Your task to perform on an android device: turn on notifications settings in the gmail app Image 0: 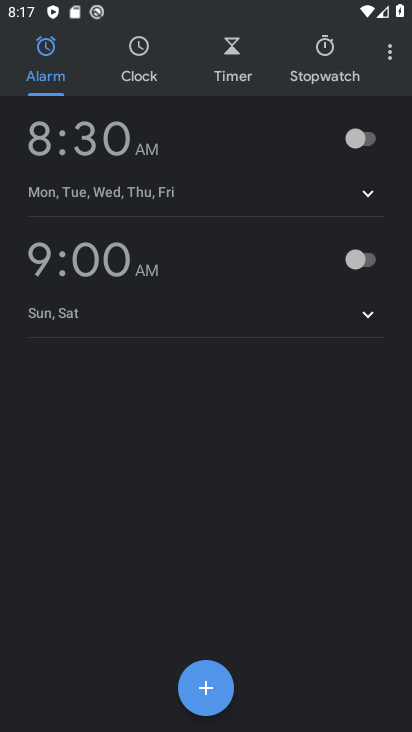
Step 0: press back button
Your task to perform on an android device: turn on notifications settings in the gmail app Image 1: 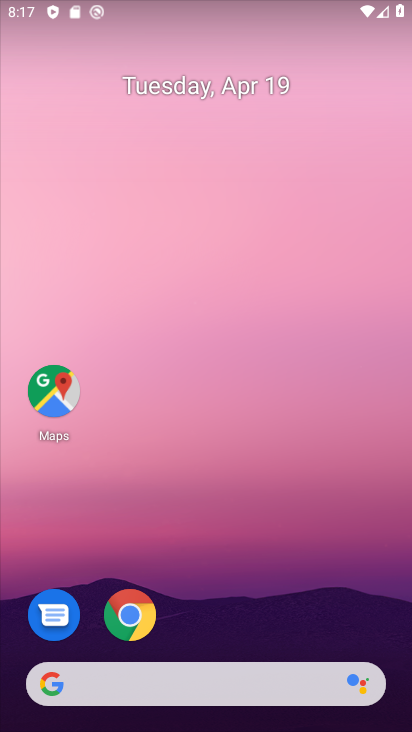
Step 1: drag from (305, 610) to (176, 49)
Your task to perform on an android device: turn on notifications settings in the gmail app Image 2: 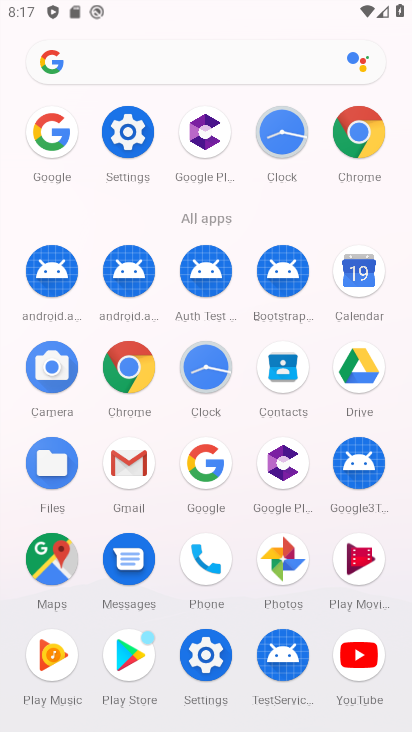
Step 2: drag from (7, 471) to (0, 161)
Your task to perform on an android device: turn on notifications settings in the gmail app Image 3: 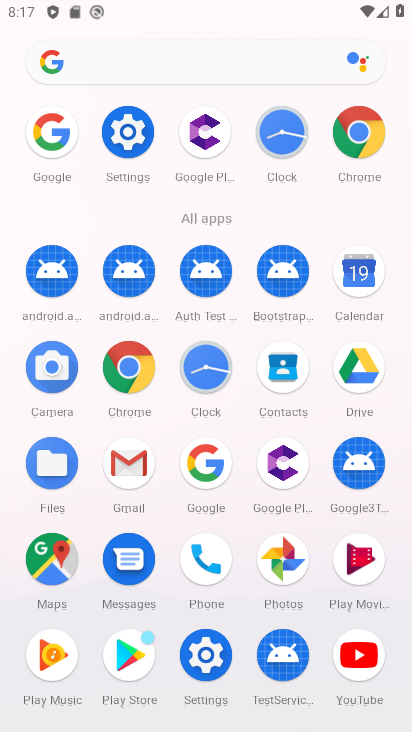
Step 3: click (125, 459)
Your task to perform on an android device: turn on notifications settings in the gmail app Image 4: 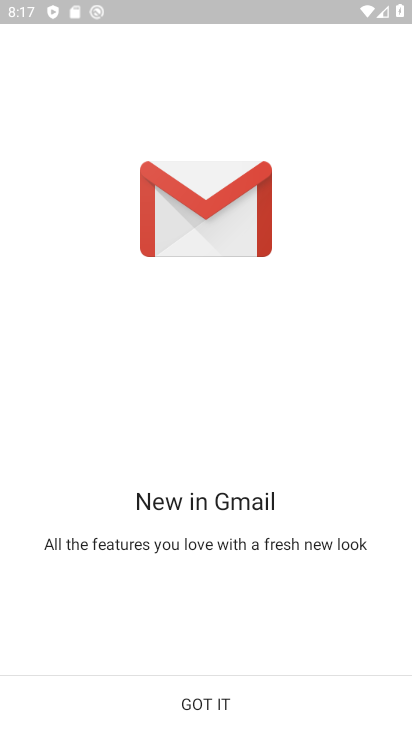
Step 4: click (231, 696)
Your task to perform on an android device: turn on notifications settings in the gmail app Image 5: 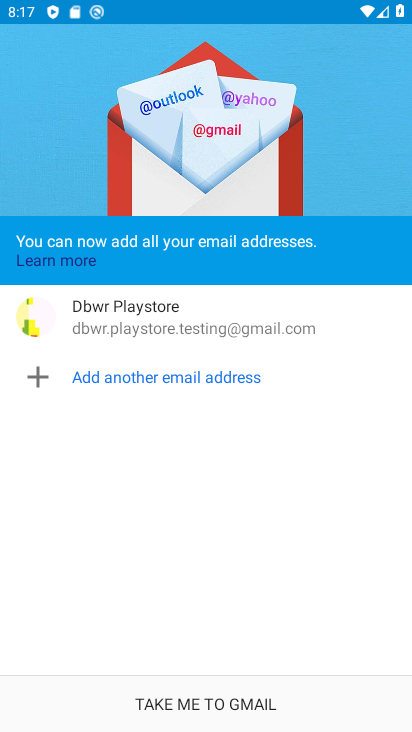
Step 5: click (264, 709)
Your task to perform on an android device: turn on notifications settings in the gmail app Image 6: 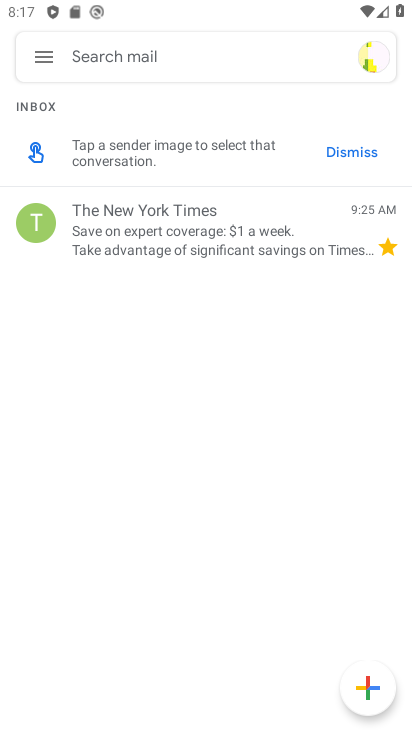
Step 6: click (44, 47)
Your task to perform on an android device: turn on notifications settings in the gmail app Image 7: 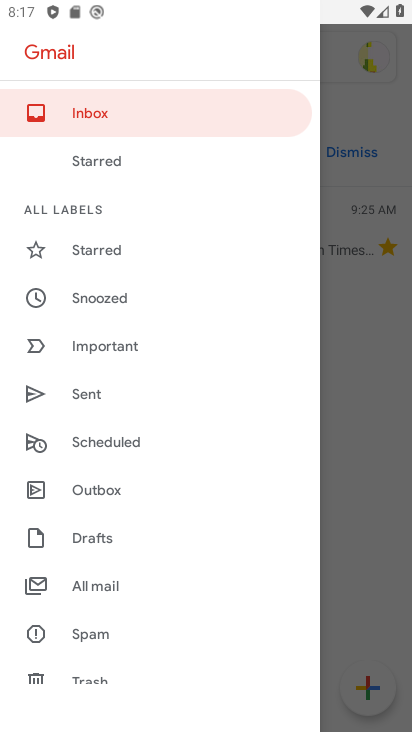
Step 7: drag from (142, 591) to (149, 162)
Your task to perform on an android device: turn on notifications settings in the gmail app Image 8: 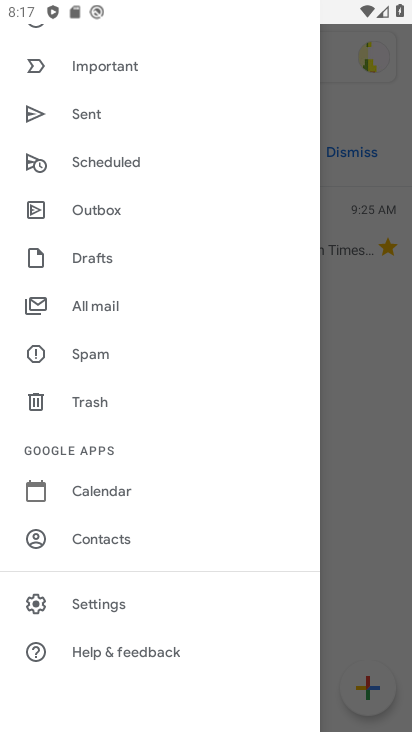
Step 8: click (112, 604)
Your task to perform on an android device: turn on notifications settings in the gmail app Image 9: 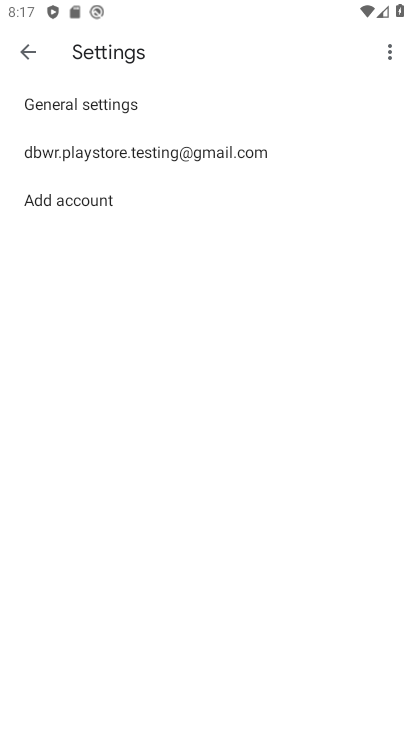
Step 9: click (180, 147)
Your task to perform on an android device: turn on notifications settings in the gmail app Image 10: 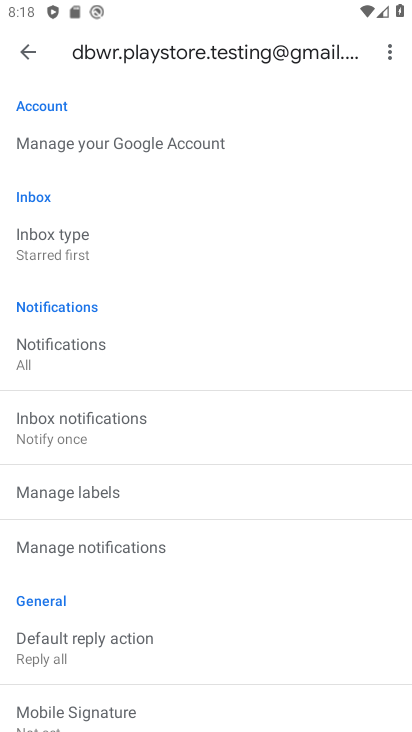
Step 10: click (137, 538)
Your task to perform on an android device: turn on notifications settings in the gmail app Image 11: 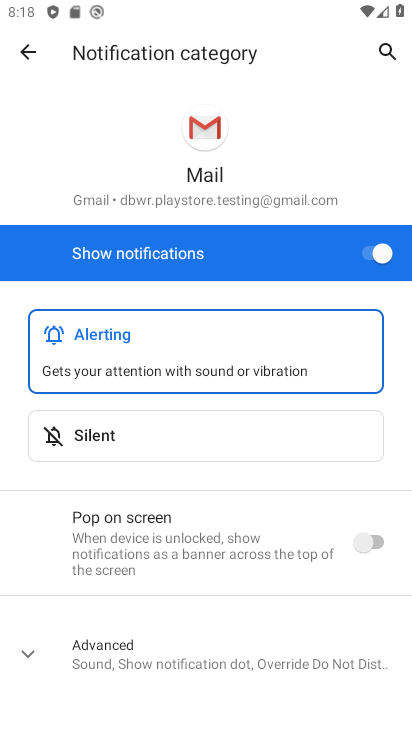
Step 11: task complete